Your task to perform on an android device: add a contact in the contacts app Image 0: 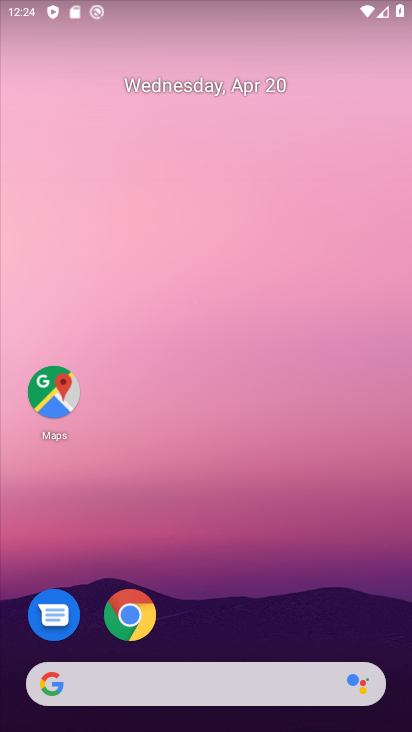
Step 0: drag from (245, 561) to (281, 183)
Your task to perform on an android device: add a contact in the contacts app Image 1: 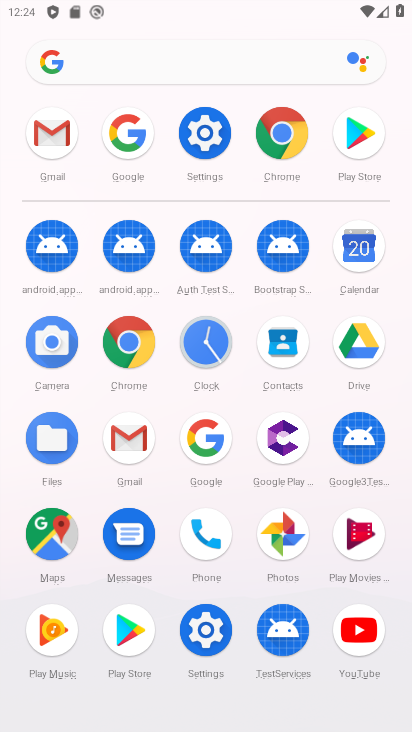
Step 1: click (277, 337)
Your task to perform on an android device: add a contact in the contacts app Image 2: 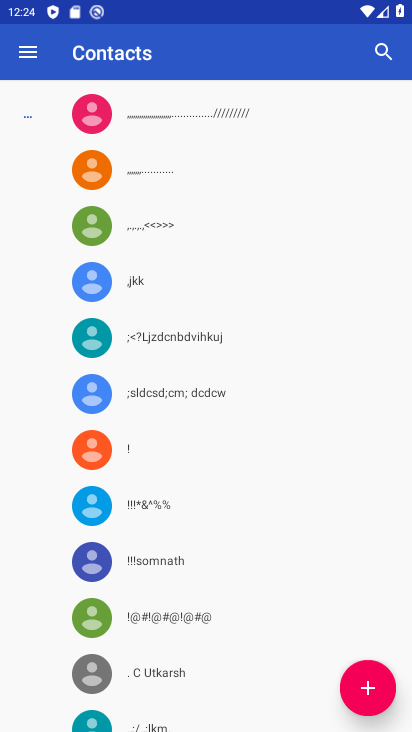
Step 2: click (379, 669)
Your task to perform on an android device: add a contact in the contacts app Image 3: 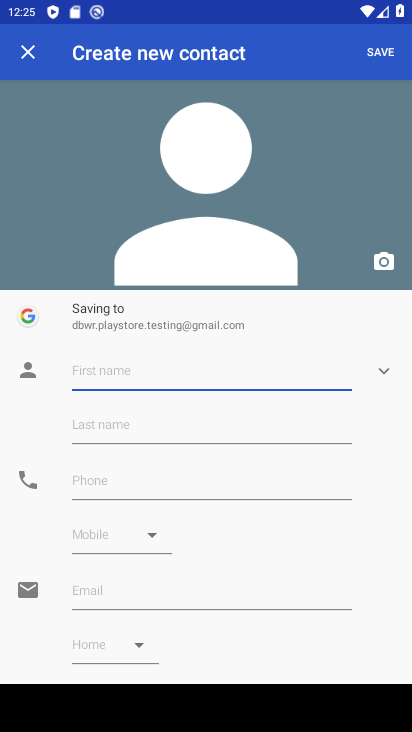
Step 3: type "ggggg"
Your task to perform on an android device: add a contact in the contacts app Image 4: 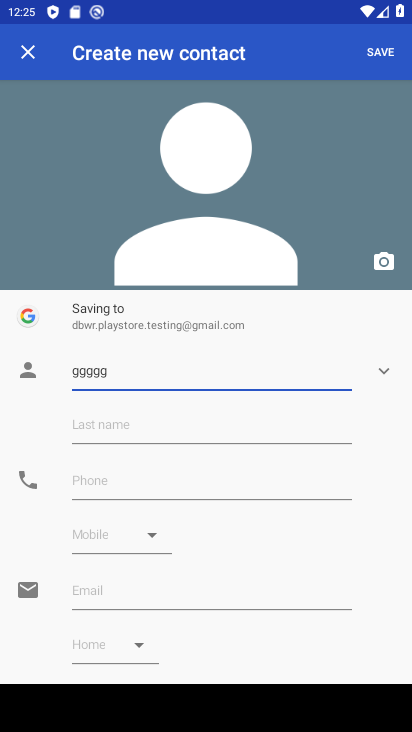
Step 4: click (378, 53)
Your task to perform on an android device: add a contact in the contacts app Image 5: 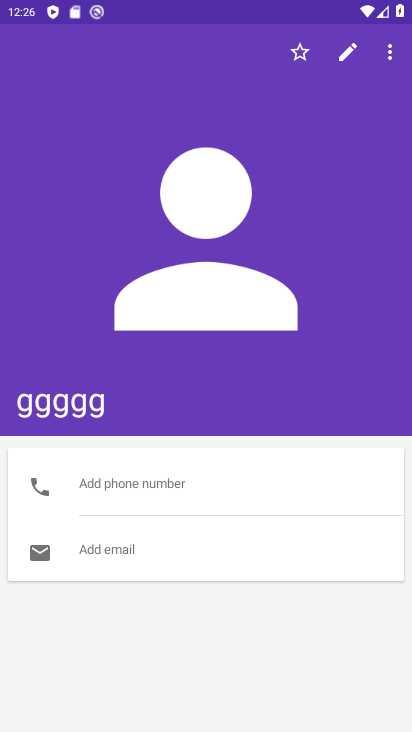
Step 5: task complete